Your task to perform on an android device: change the clock style Image 0: 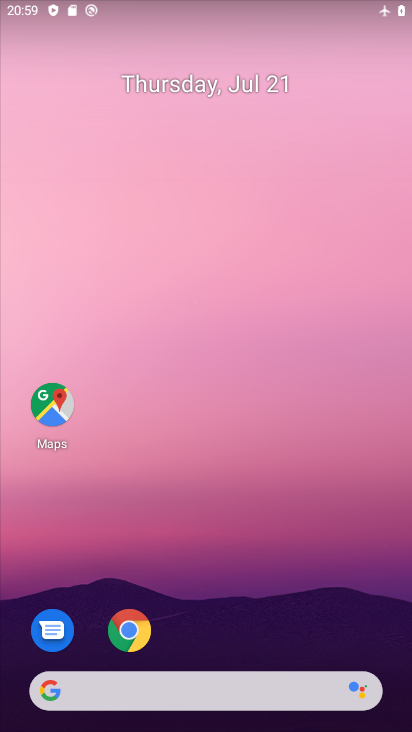
Step 0: click (190, 409)
Your task to perform on an android device: change the clock style Image 1: 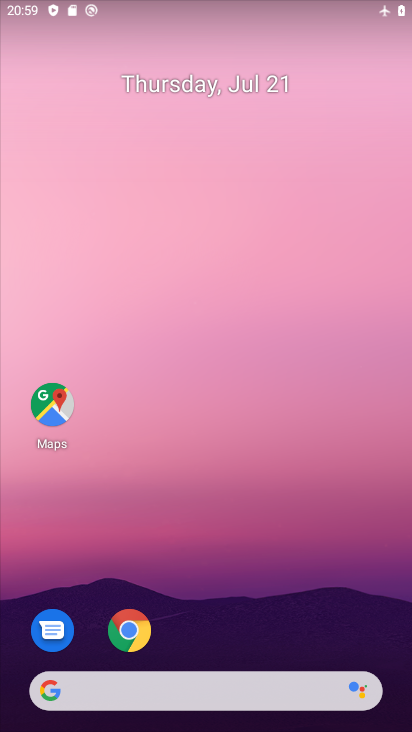
Step 1: drag from (260, 564) to (310, 225)
Your task to perform on an android device: change the clock style Image 2: 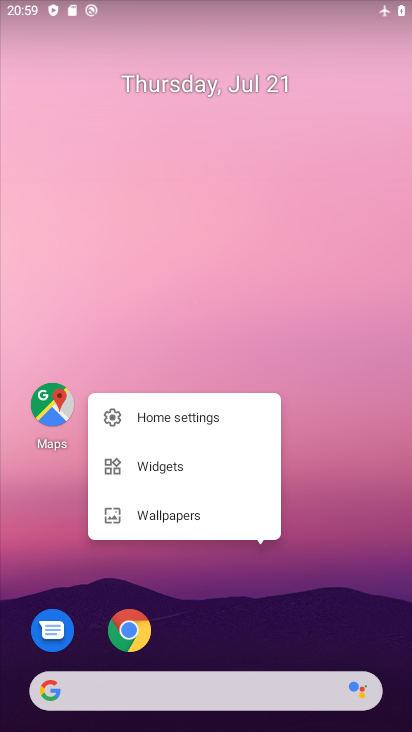
Step 2: click (207, 607)
Your task to perform on an android device: change the clock style Image 3: 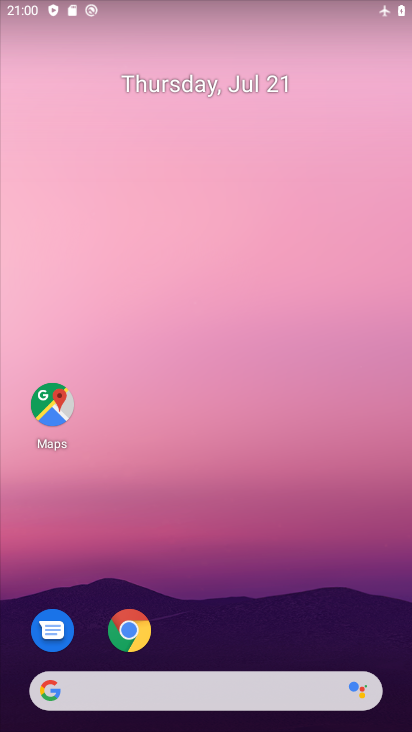
Step 3: drag from (186, 677) to (213, 359)
Your task to perform on an android device: change the clock style Image 4: 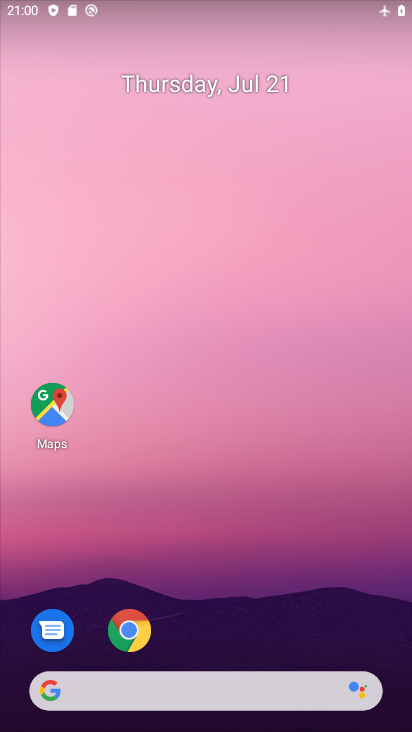
Step 4: drag from (185, 678) to (214, 383)
Your task to perform on an android device: change the clock style Image 5: 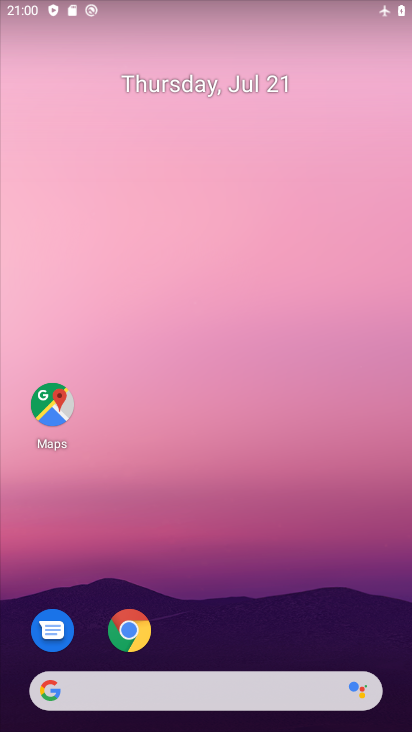
Step 5: drag from (172, 675) to (269, 174)
Your task to perform on an android device: change the clock style Image 6: 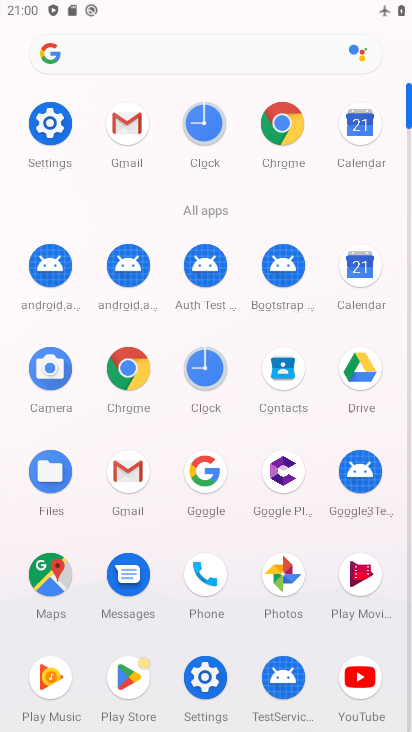
Step 6: click (201, 122)
Your task to perform on an android device: change the clock style Image 7: 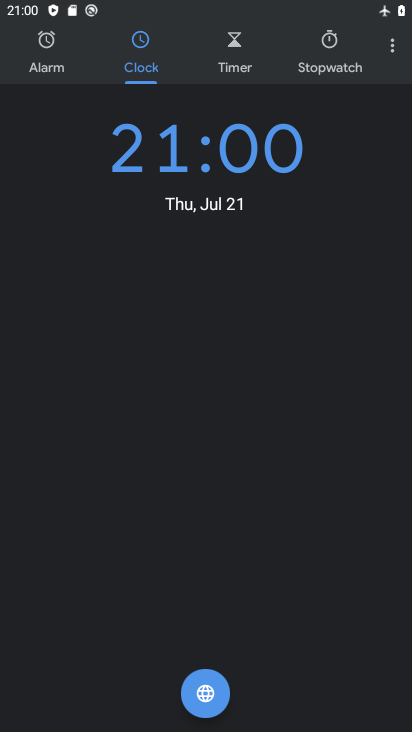
Step 7: click (382, 44)
Your task to perform on an android device: change the clock style Image 8: 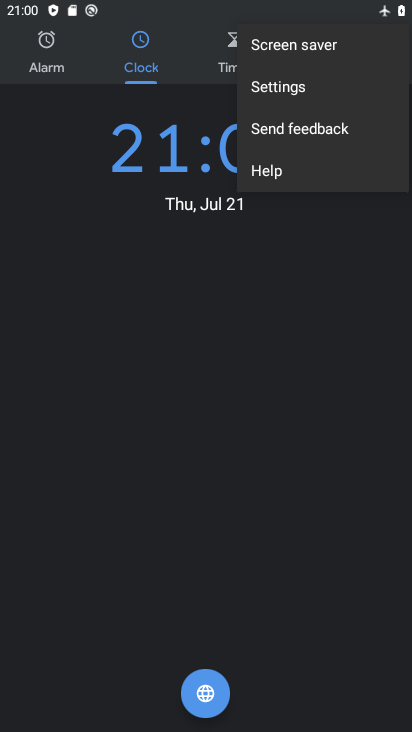
Step 8: click (293, 81)
Your task to perform on an android device: change the clock style Image 9: 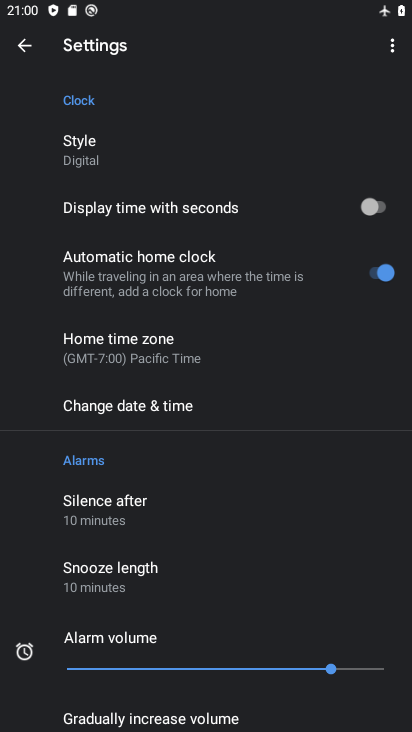
Step 9: click (71, 160)
Your task to perform on an android device: change the clock style Image 10: 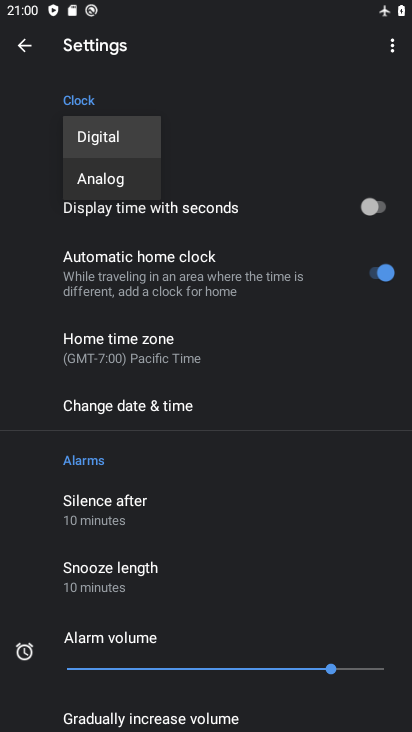
Step 10: click (93, 180)
Your task to perform on an android device: change the clock style Image 11: 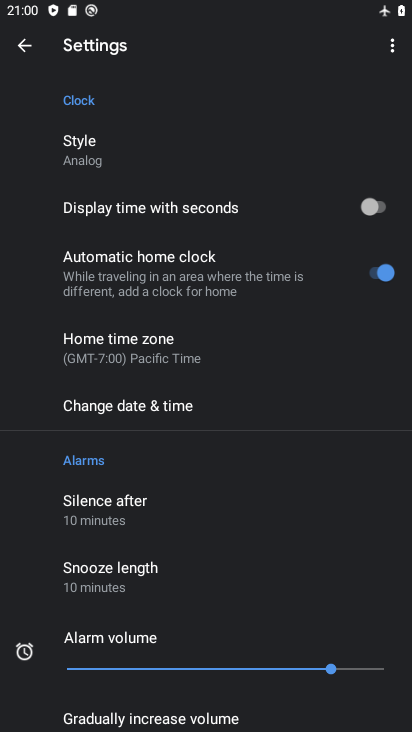
Step 11: task complete